Your task to perform on an android device: Open battery settings Image 0: 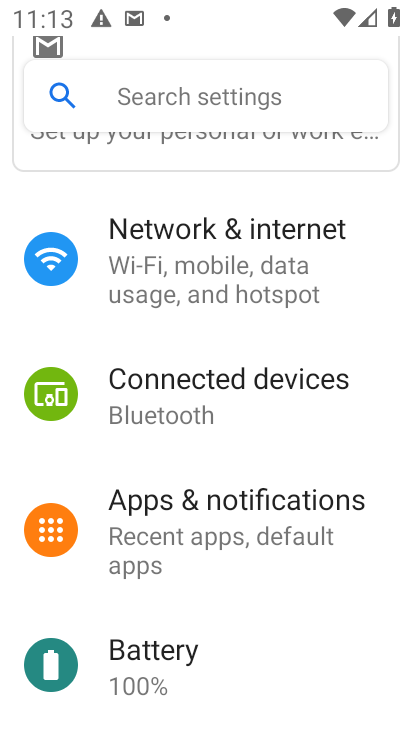
Step 0: press home button
Your task to perform on an android device: Open battery settings Image 1: 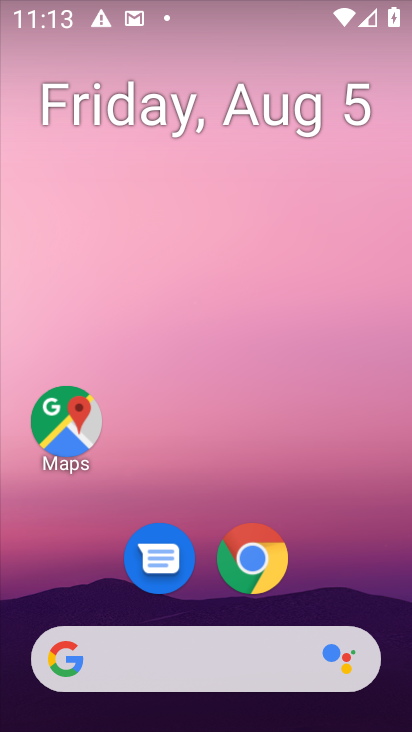
Step 1: drag from (385, 571) to (386, 261)
Your task to perform on an android device: Open battery settings Image 2: 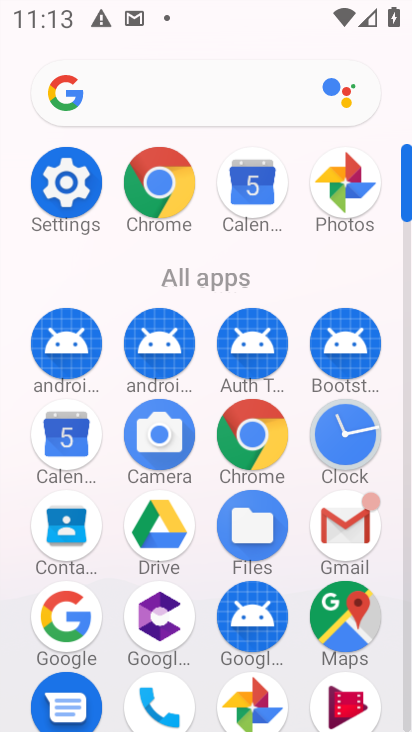
Step 2: click (82, 195)
Your task to perform on an android device: Open battery settings Image 3: 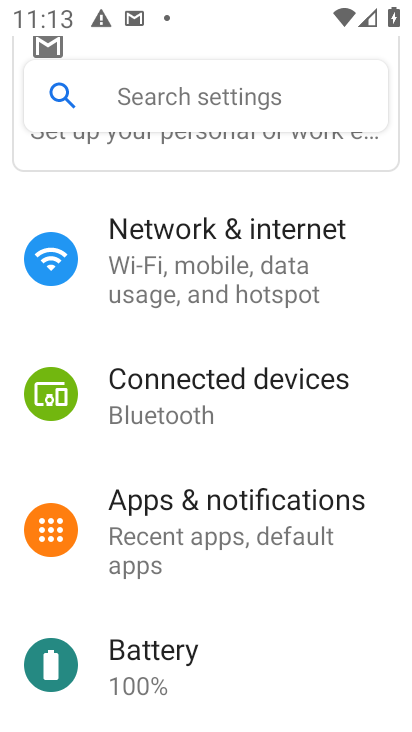
Step 3: drag from (379, 458) to (378, 323)
Your task to perform on an android device: Open battery settings Image 4: 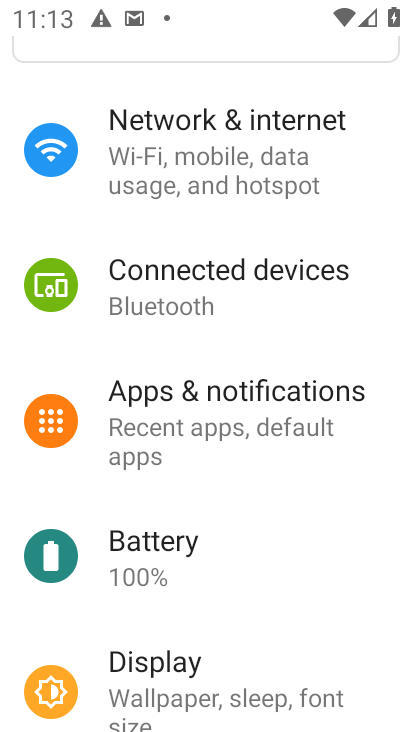
Step 4: drag from (333, 516) to (348, 426)
Your task to perform on an android device: Open battery settings Image 5: 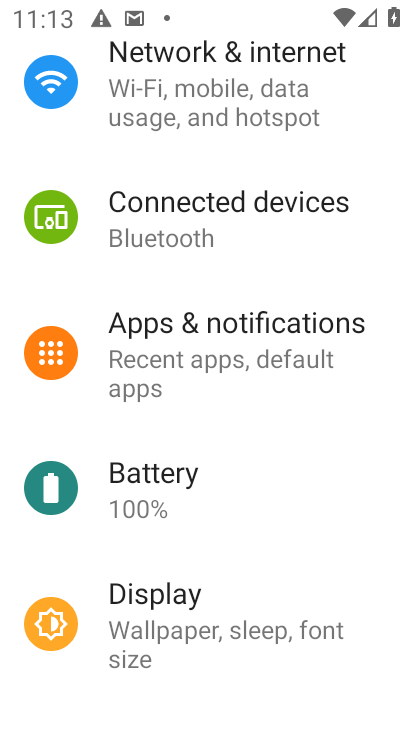
Step 5: drag from (338, 530) to (356, 439)
Your task to perform on an android device: Open battery settings Image 6: 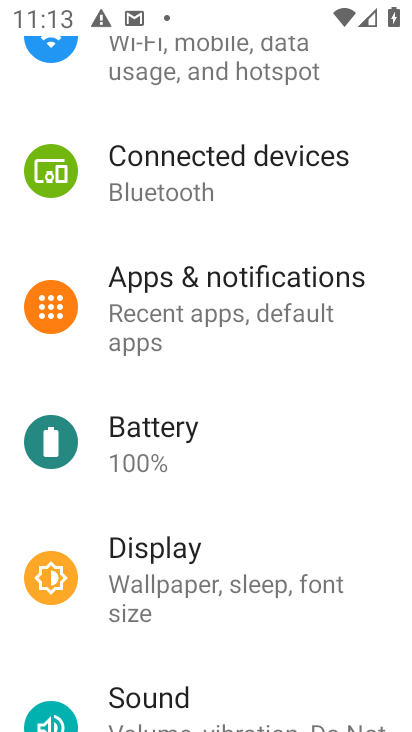
Step 6: click (236, 456)
Your task to perform on an android device: Open battery settings Image 7: 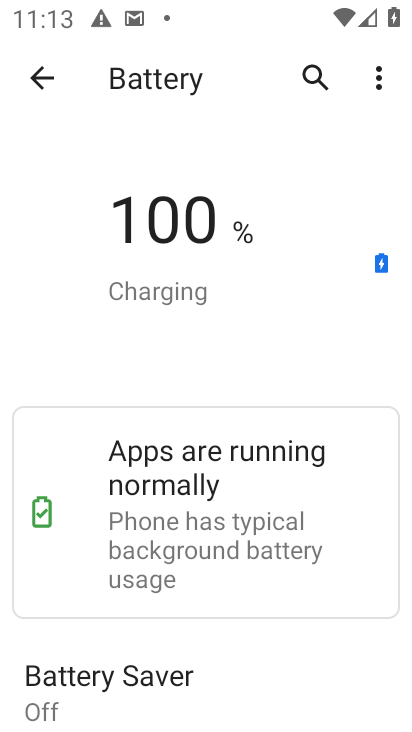
Step 7: task complete